Your task to perform on an android device: What's the weather going to be this weekend? Image 0: 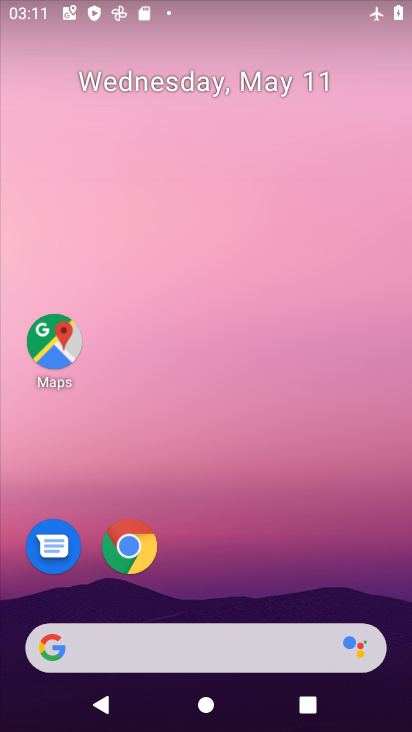
Step 0: drag from (216, 583) to (253, 290)
Your task to perform on an android device: What's the weather going to be this weekend? Image 1: 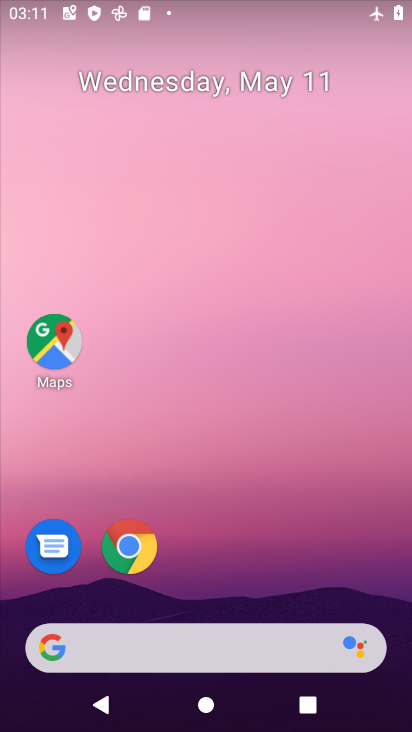
Step 1: drag from (217, 593) to (255, 130)
Your task to perform on an android device: What's the weather going to be this weekend? Image 2: 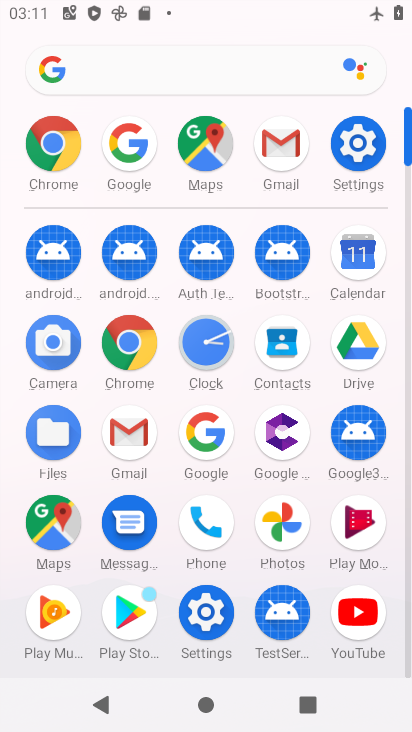
Step 2: click (216, 70)
Your task to perform on an android device: What's the weather going to be this weekend? Image 3: 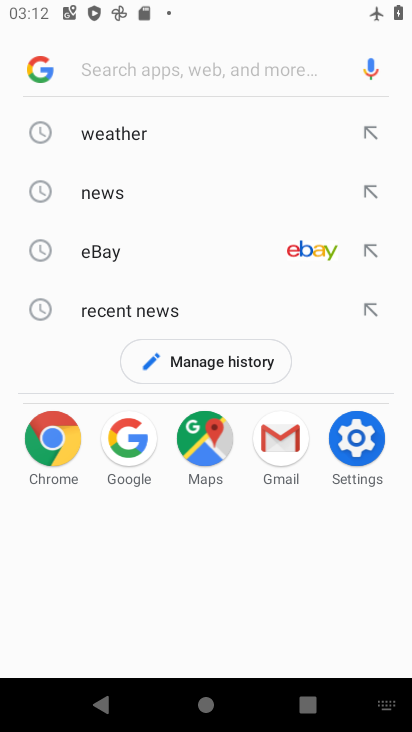
Step 3: type "weather weekend"
Your task to perform on an android device: What's the weather going to be this weekend? Image 4: 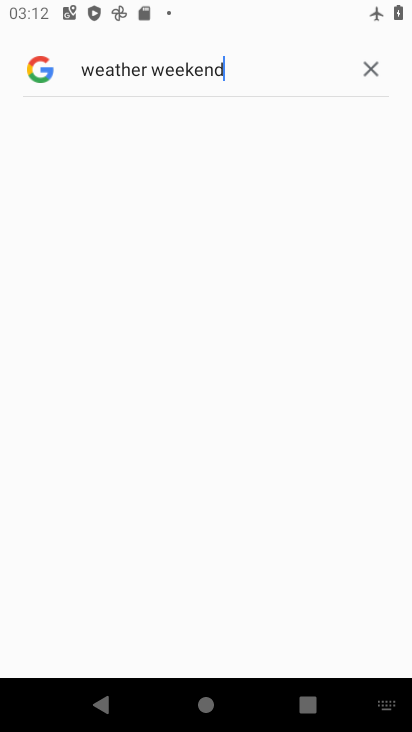
Step 4: task complete